Your task to perform on an android device: toggle translation in the chrome app Image 0: 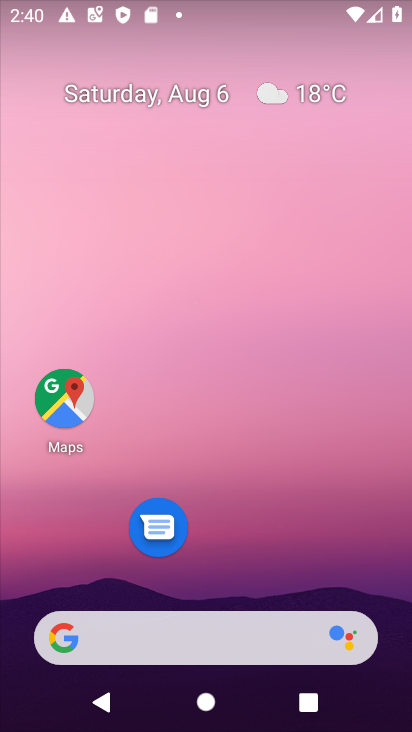
Step 0: drag from (240, 574) to (305, 88)
Your task to perform on an android device: toggle translation in the chrome app Image 1: 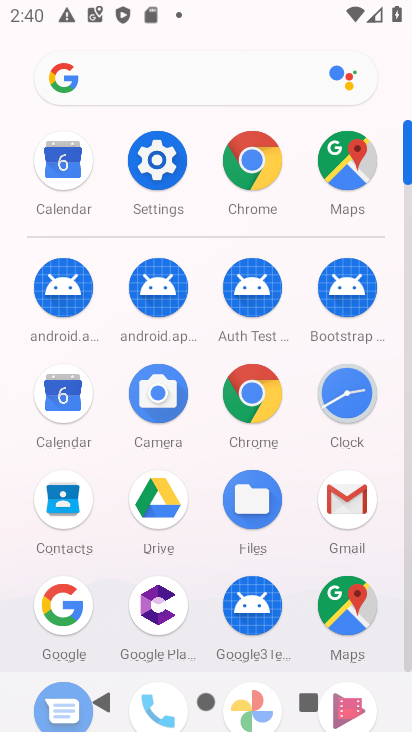
Step 1: click (260, 405)
Your task to perform on an android device: toggle translation in the chrome app Image 2: 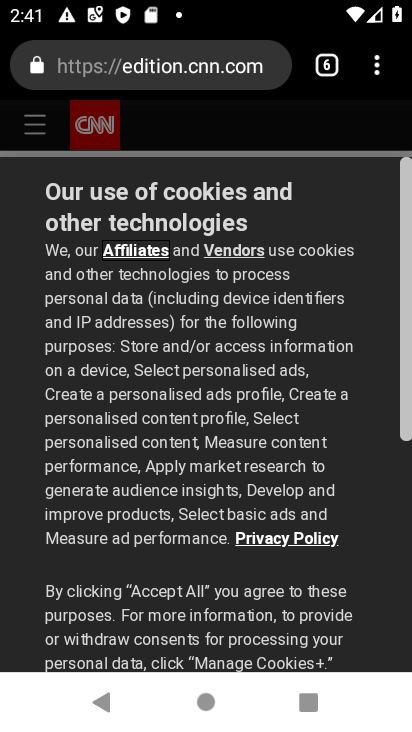
Step 2: click (384, 80)
Your task to perform on an android device: toggle translation in the chrome app Image 3: 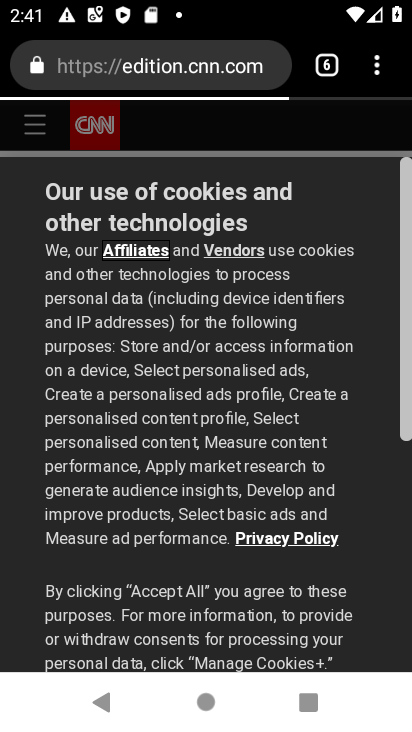
Step 3: click (374, 79)
Your task to perform on an android device: toggle translation in the chrome app Image 4: 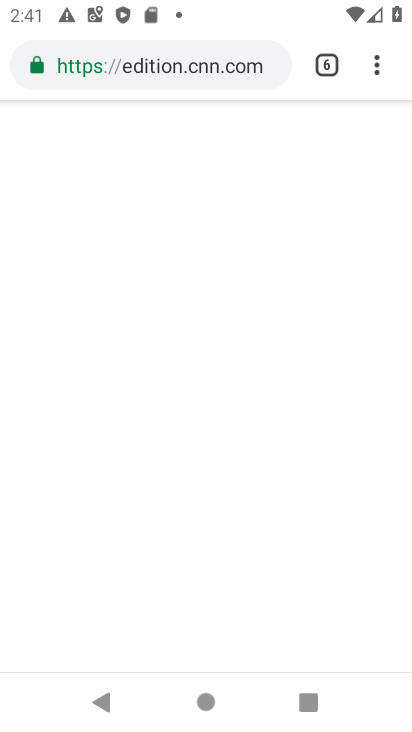
Step 4: click (380, 64)
Your task to perform on an android device: toggle translation in the chrome app Image 5: 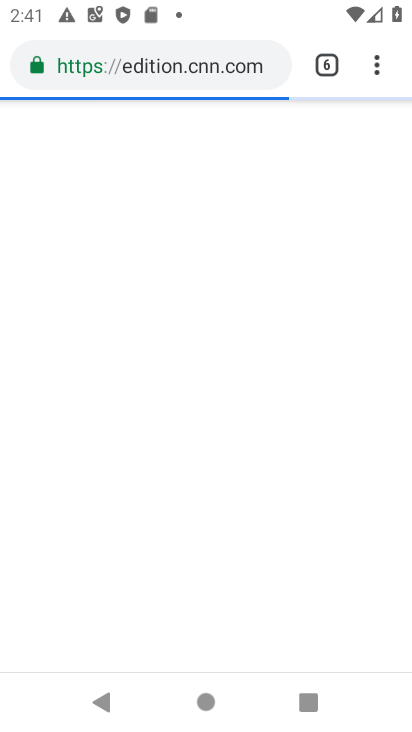
Step 5: click (375, 78)
Your task to perform on an android device: toggle translation in the chrome app Image 6: 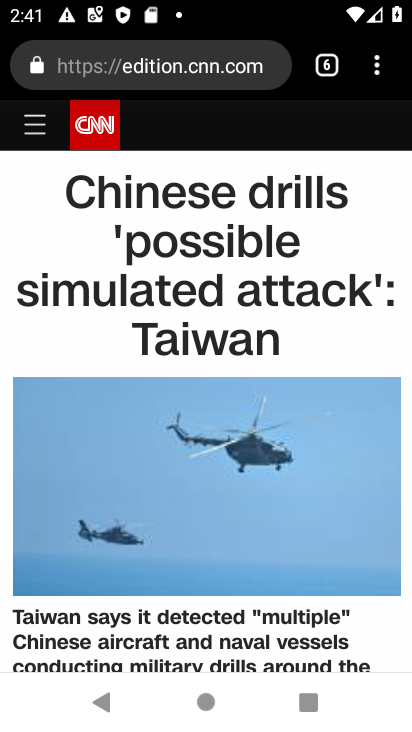
Step 6: click (381, 73)
Your task to perform on an android device: toggle translation in the chrome app Image 7: 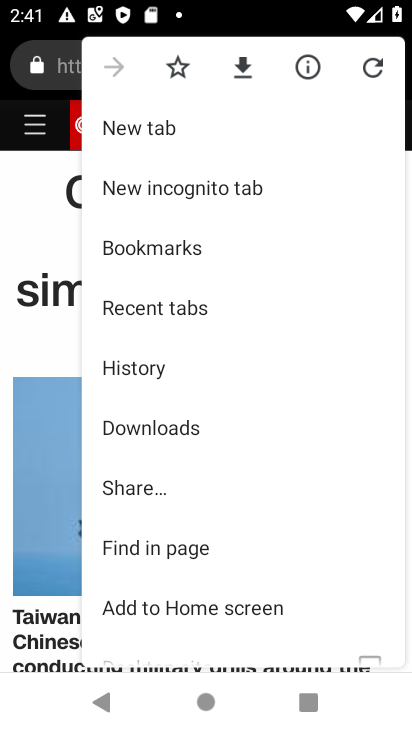
Step 7: drag from (175, 510) to (262, 154)
Your task to perform on an android device: toggle translation in the chrome app Image 8: 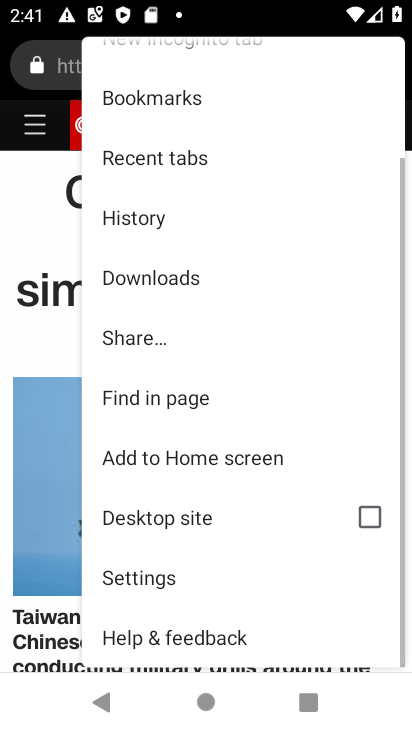
Step 8: click (174, 577)
Your task to perform on an android device: toggle translation in the chrome app Image 9: 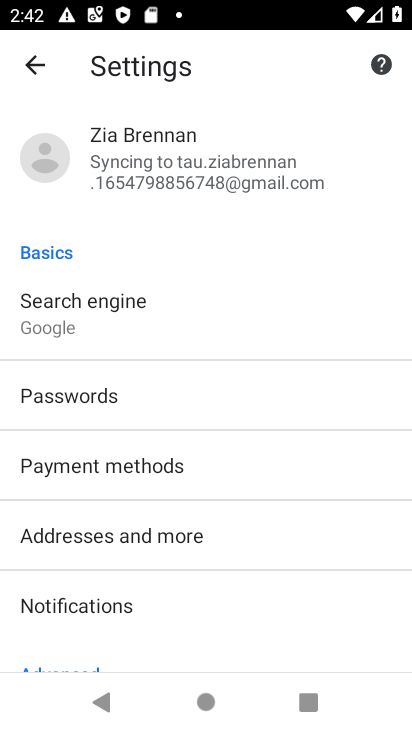
Step 9: drag from (228, 528) to (269, 218)
Your task to perform on an android device: toggle translation in the chrome app Image 10: 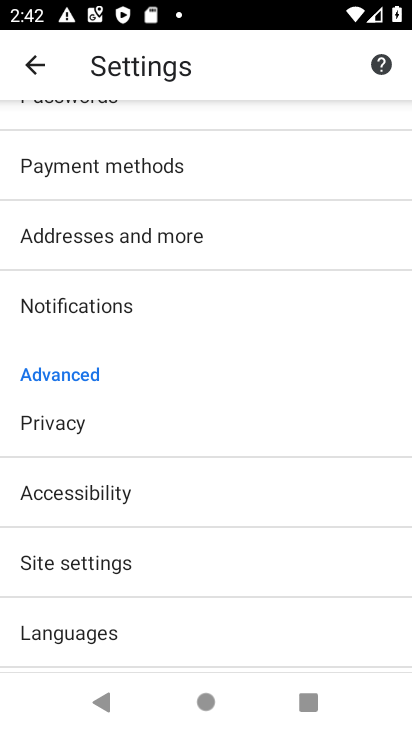
Step 10: click (144, 622)
Your task to perform on an android device: toggle translation in the chrome app Image 11: 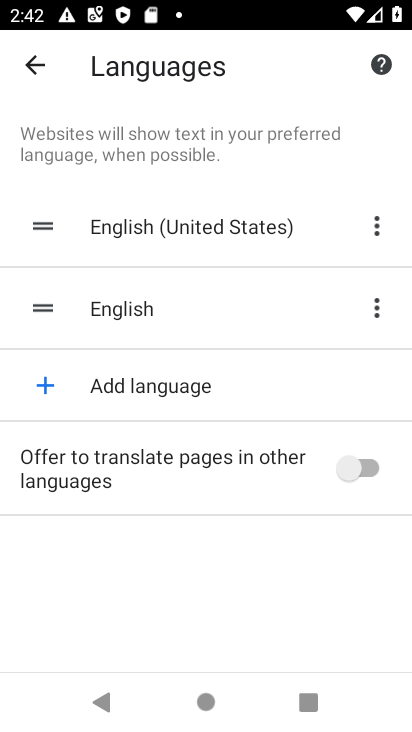
Step 11: click (352, 465)
Your task to perform on an android device: toggle translation in the chrome app Image 12: 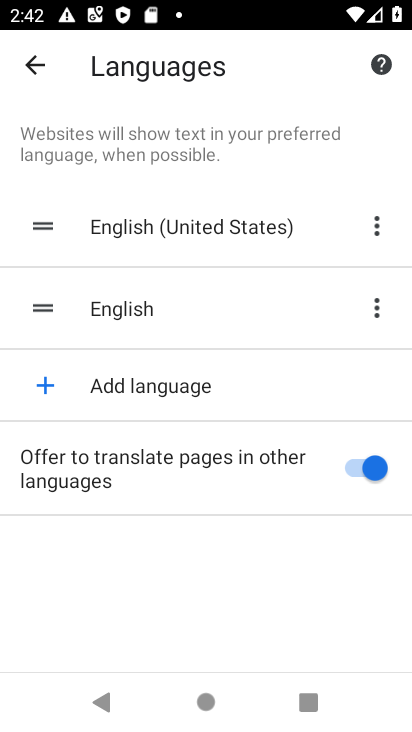
Step 12: task complete